Your task to perform on an android device: Open Yahoo.com Image 0: 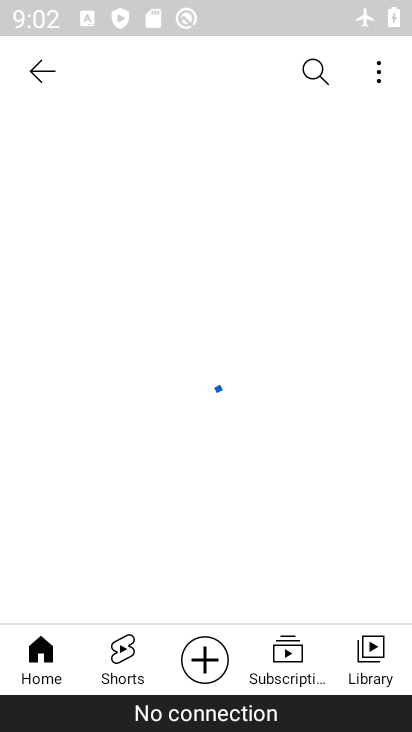
Step 0: press home button
Your task to perform on an android device: Open Yahoo.com Image 1: 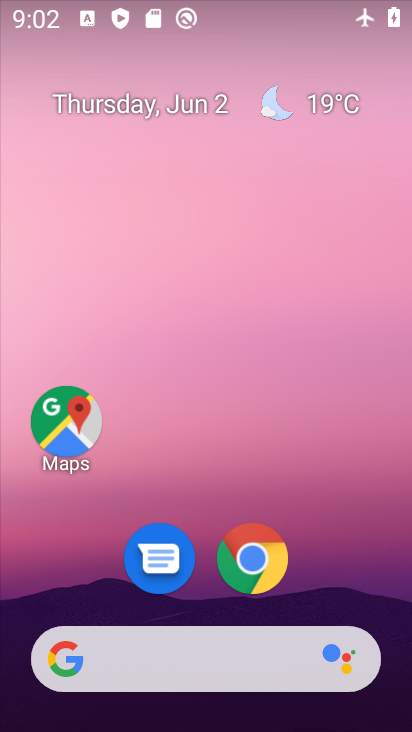
Step 1: click (252, 553)
Your task to perform on an android device: Open Yahoo.com Image 2: 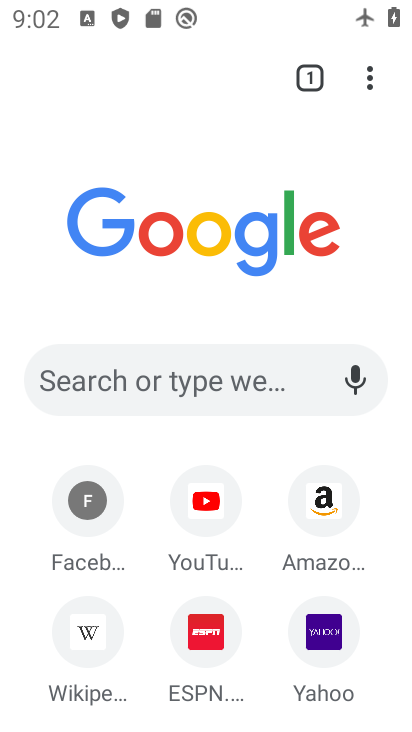
Step 2: click (95, 380)
Your task to perform on an android device: Open Yahoo.com Image 3: 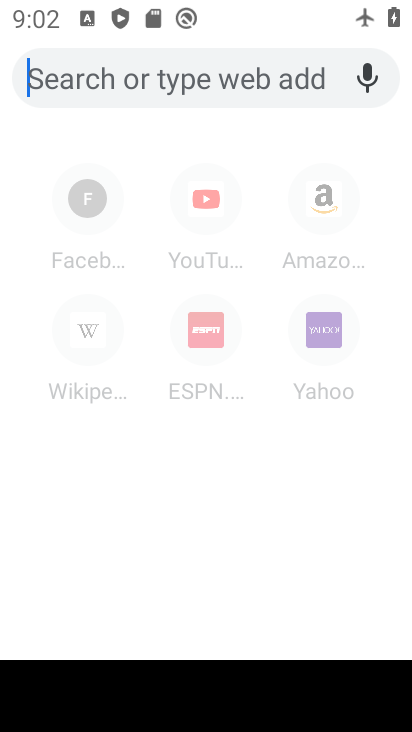
Step 3: type "yahoo.com"
Your task to perform on an android device: Open Yahoo.com Image 4: 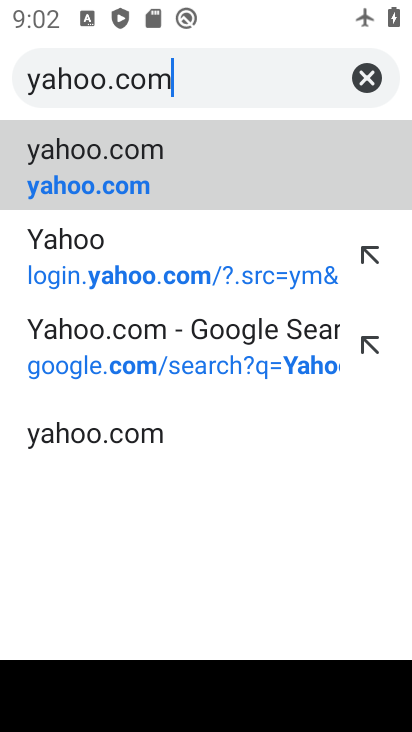
Step 4: click (81, 136)
Your task to perform on an android device: Open Yahoo.com Image 5: 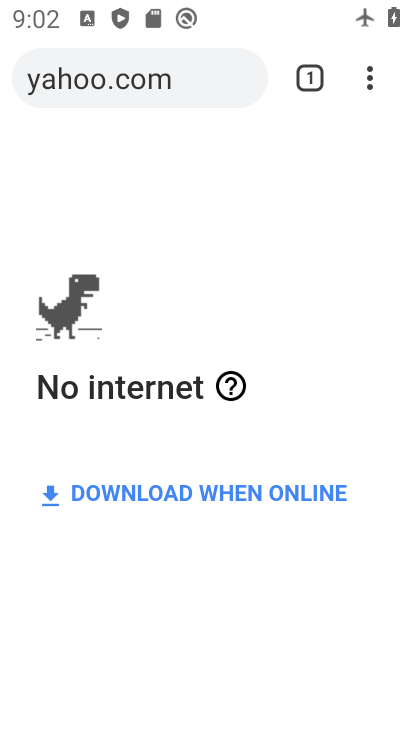
Step 5: press home button
Your task to perform on an android device: Open Yahoo.com Image 6: 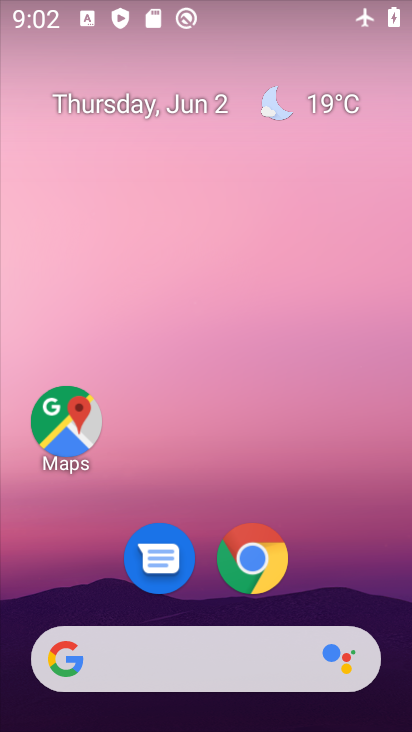
Step 6: drag from (386, 603) to (321, 13)
Your task to perform on an android device: Open Yahoo.com Image 7: 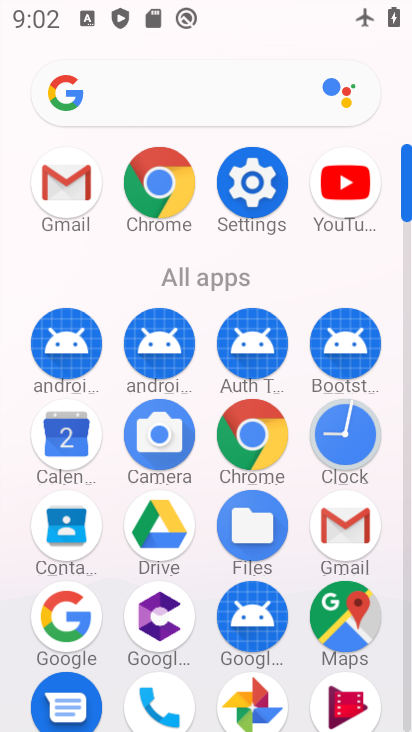
Step 7: click (405, 679)
Your task to perform on an android device: Open Yahoo.com Image 8: 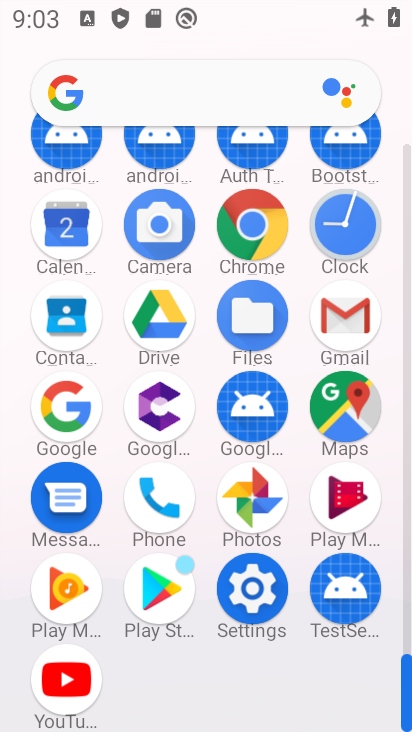
Step 8: click (249, 587)
Your task to perform on an android device: Open Yahoo.com Image 9: 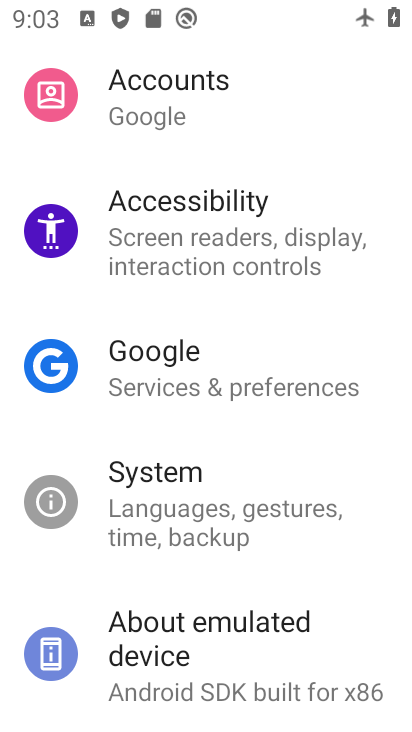
Step 9: drag from (286, 207) to (272, 558)
Your task to perform on an android device: Open Yahoo.com Image 10: 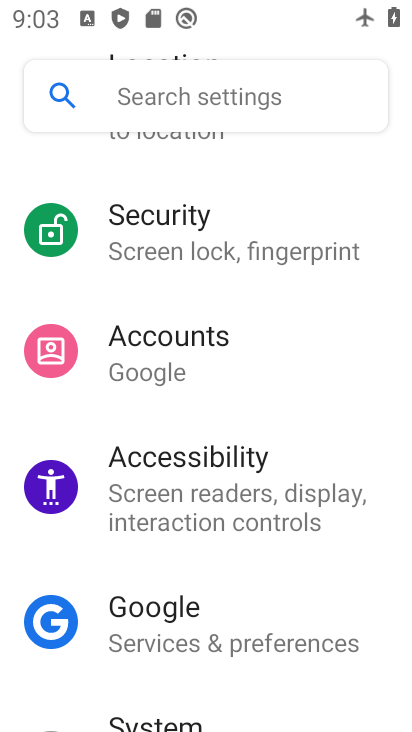
Step 10: drag from (270, 263) to (236, 600)
Your task to perform on an android device: Open Yahoo.com Image 11: 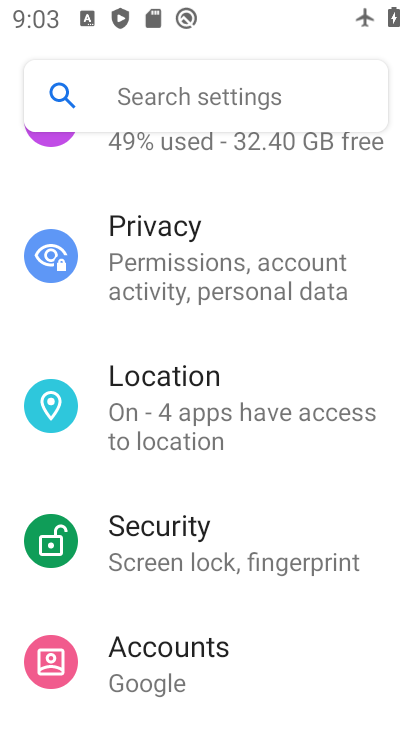
Step 11: drag from (231, 187) to (204, 527)
Your task to perform on an android device: Open Yahoo.com Image 12: 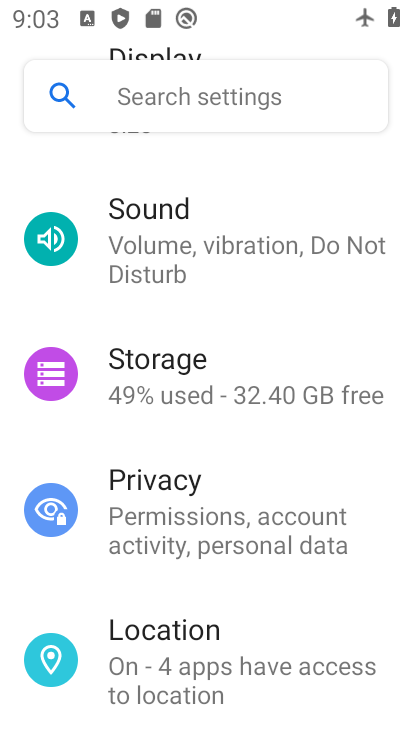
Step 12: drag from (206, 154) to (233, 555)
Your task to perform on an android device: Open Yahoo.com Image 13: 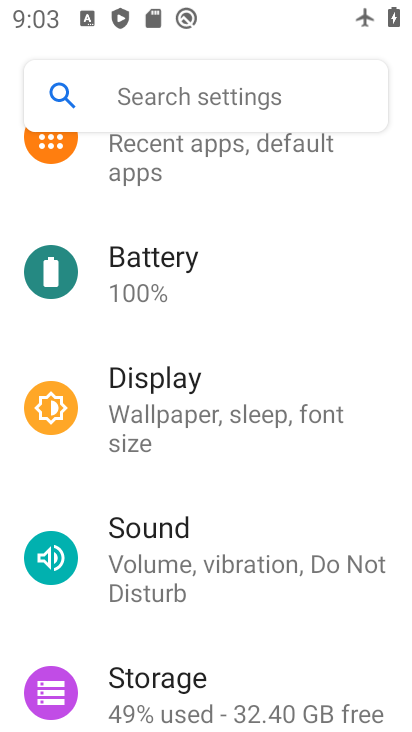
Step 13: drag from (299, 262) to (291, 563)
Your task to perform on an android device: Open Yahoo.com Image 14: 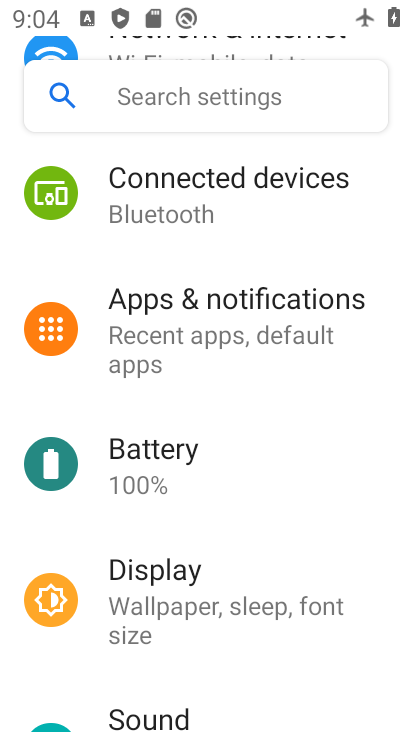
Step 14: drag from (293, 261) to (283, 569)
Your task to perform on an android device: Open Yahoo.com Image 15: 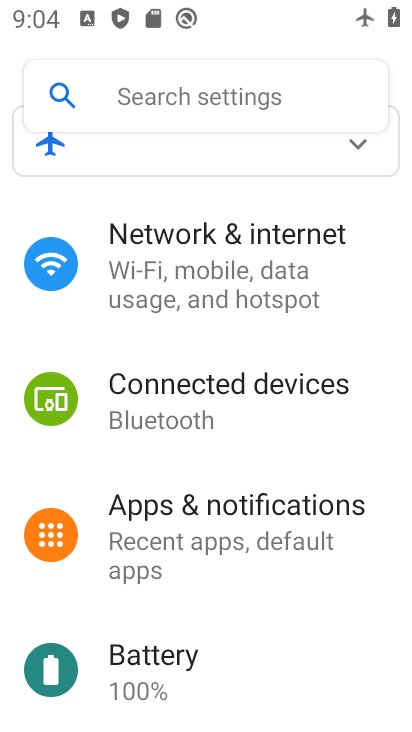
Step 15: click (172, 251)
Your task to perform on an android device: Open Yahoo.com Image 16: 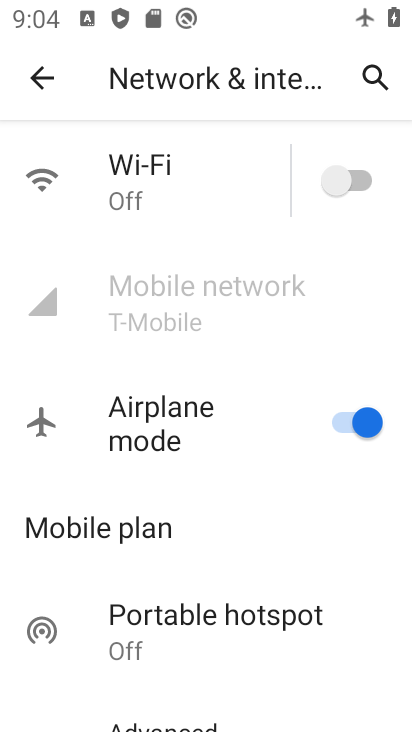
Step 16: click (360, 176)
Your task to perform on an android device: Open Yahoo.com Image 17: 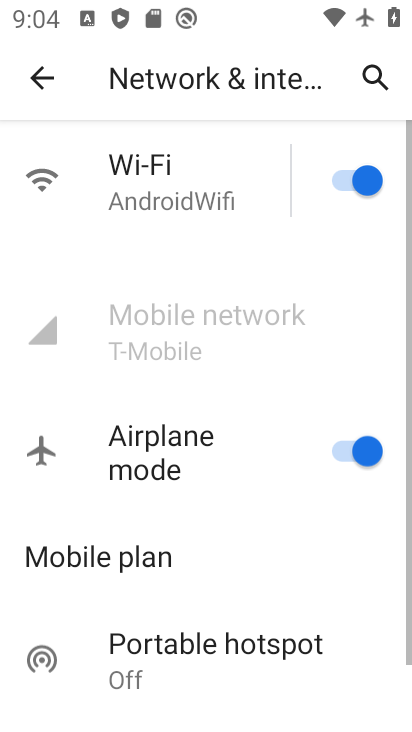
Step 17: press home button
Your task to perform on an android device: Open Yahoo.com Image 18: 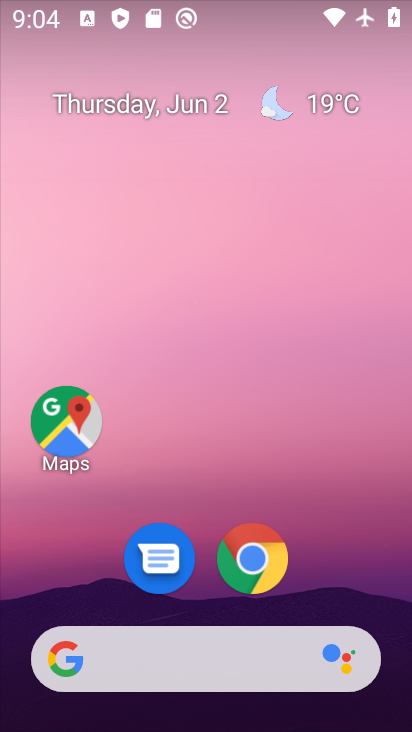
Step 18: click (258, 582)
Your task to perform on an android device: Open Yahoo.com Image 19: 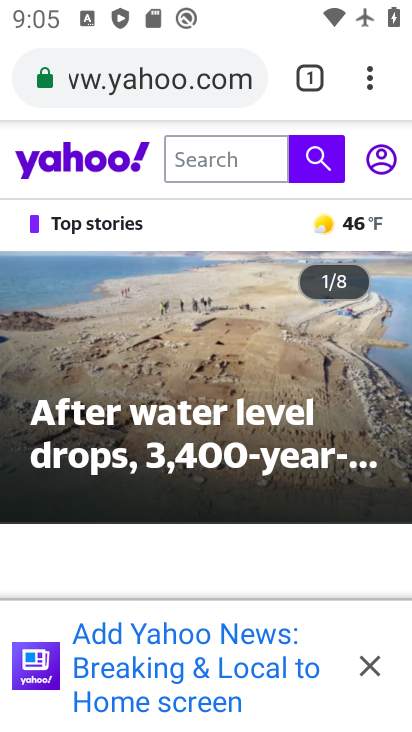
Step 19: task complete